Your task to perform on an android device: Check the weather Image 0: 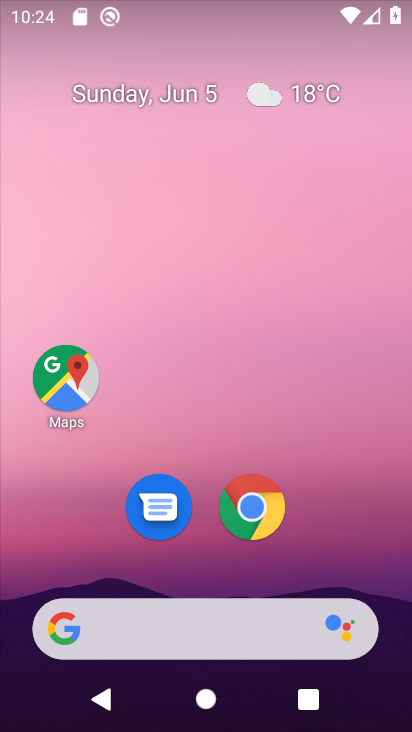
Step 0: click (283, 104)
Your task to perform on an android device: Check the weather Image 1: 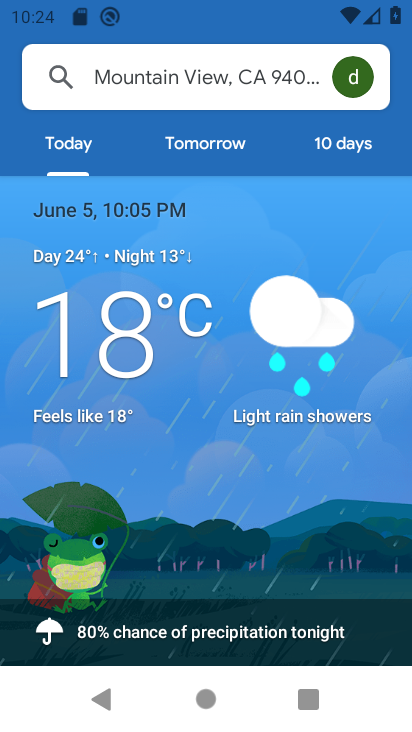
Step 1: task complete